Your task to perform on an android device: set an alarm Image 0: 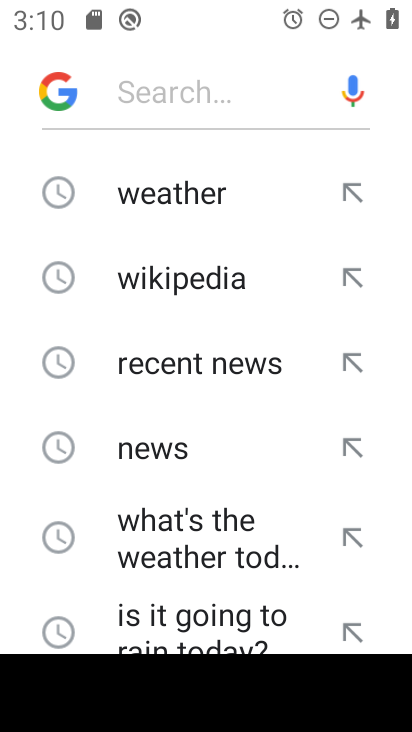
Step 0: press home button
Your task to perform on an android device: set an alarm Image 1: 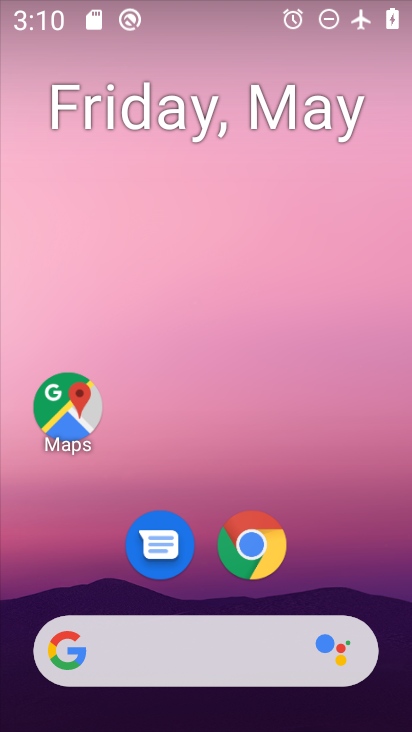
Step 1: drag from (310, 480) to (317, 285)
Your task to perform on an android device: set an alarm Image 2: 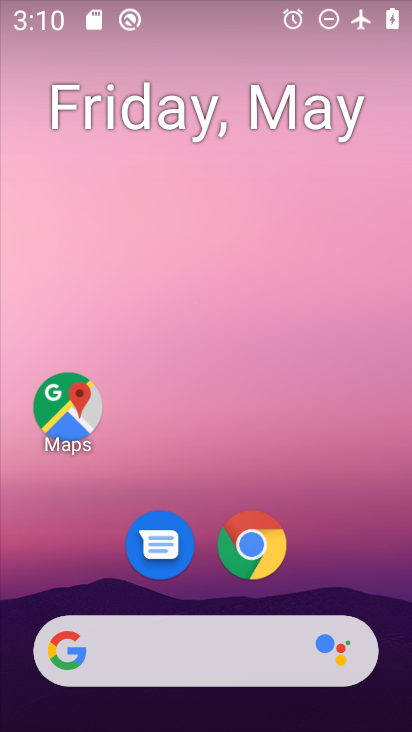
Step 2: drag from (323, 566) to (282, 157)
Your task to perform on an android device: set an alarm Image 3: 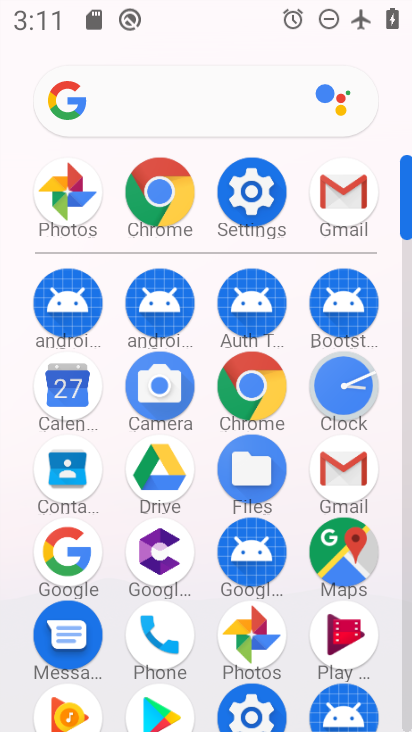
Step 3: click (339, 383)
Your task to perform on an android device: set an alarm Image 4: 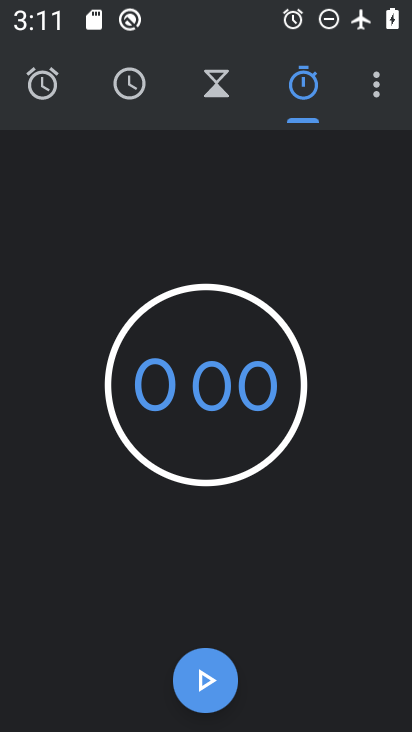
Step 4: click (56, 85)
Your task to perform on an android device: set an alarm Image 5: 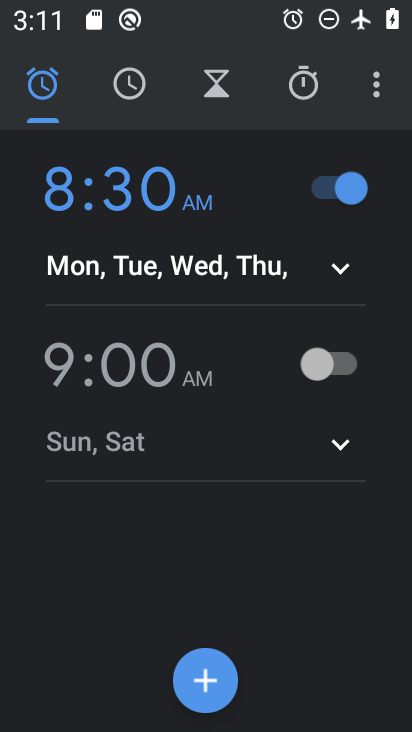
Step 5: click (341, 350)
Your task to perform on an android device: set an alarm Image 6: 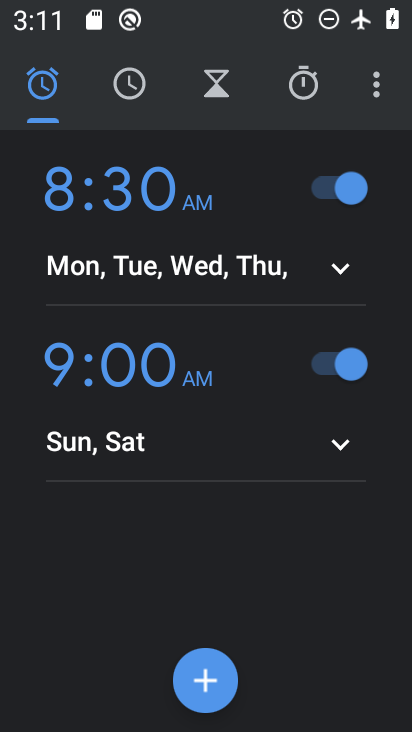
Step 6: task complete